Your task to perform on an android device: open wifi settings Image 0: 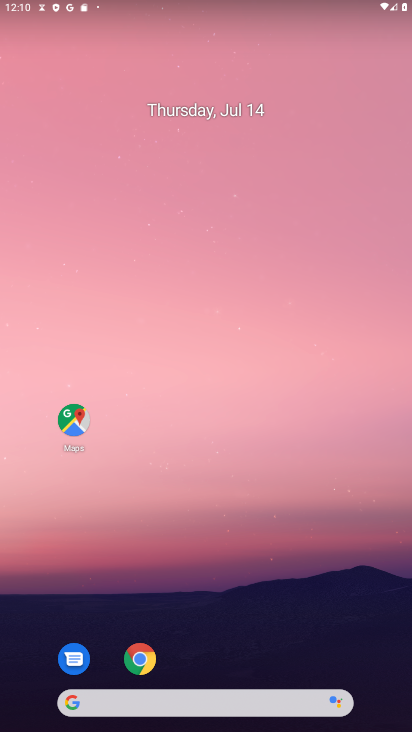
Step 0: drag from (272, 221) to (351, 58)
Your task to perform on an android device: open wifi settings Image 1: 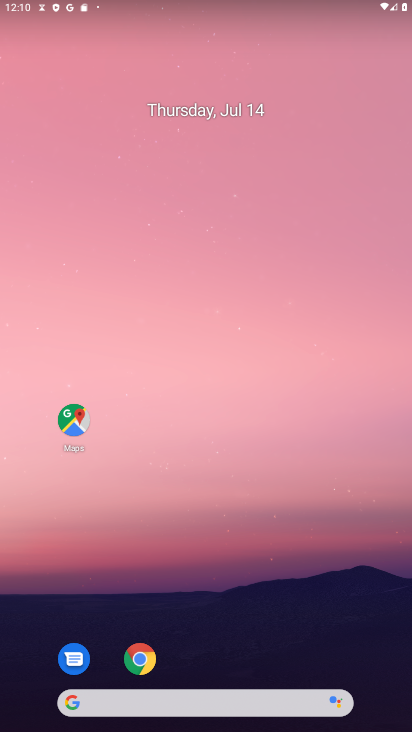
Step 1: drag from (14, 700) to (146, 177)
Your task to perform on an android device: open wifi settings Image 2: 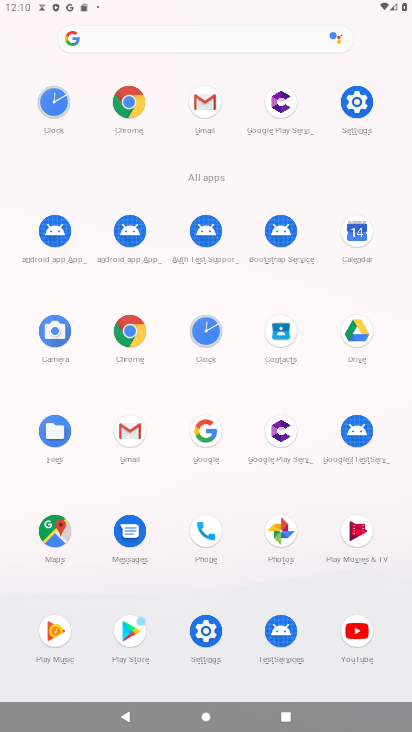
Step 2: click (206, 623)
Your task to perform on an android device: open wifi settings Image 3: 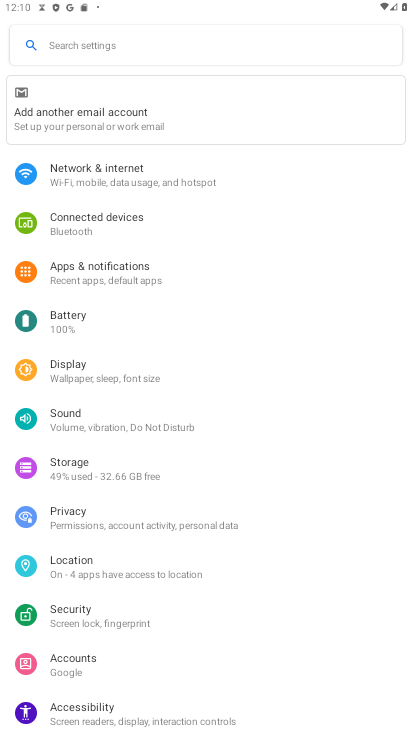
Step 3: click (131, 183)
Your task to perform on an android device: open wifi settings Image 4: 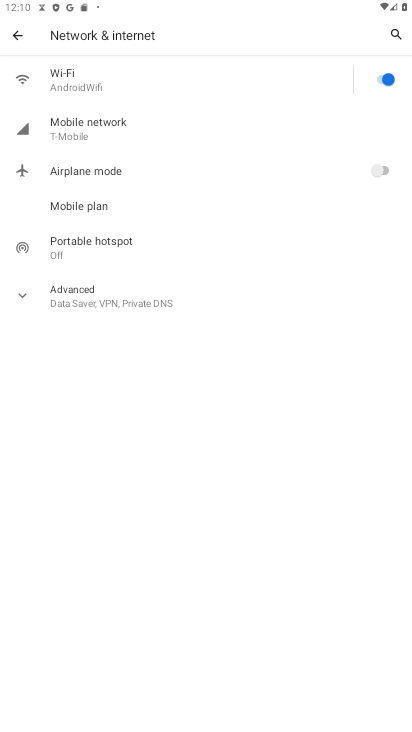
Step 4: click (86, 76)
Your task to perform on an android device: open wifi settings Image 5: 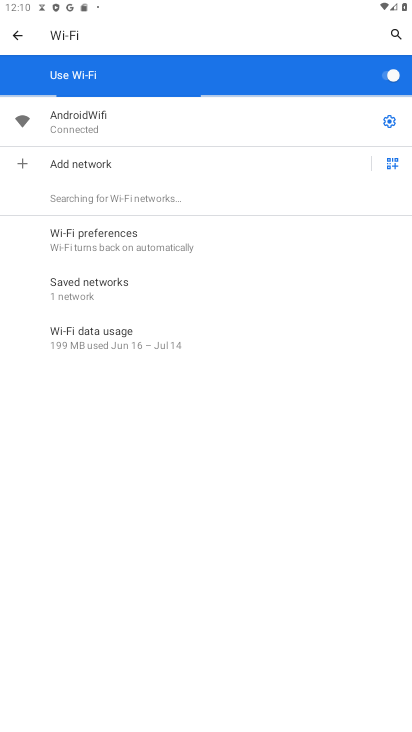
Step 5: task complete